Your task to perform on an android device: Empty the shopping cart on amazon.com. Add "usb-b" to the cart on amazon.com, then select checkout. Image 0: 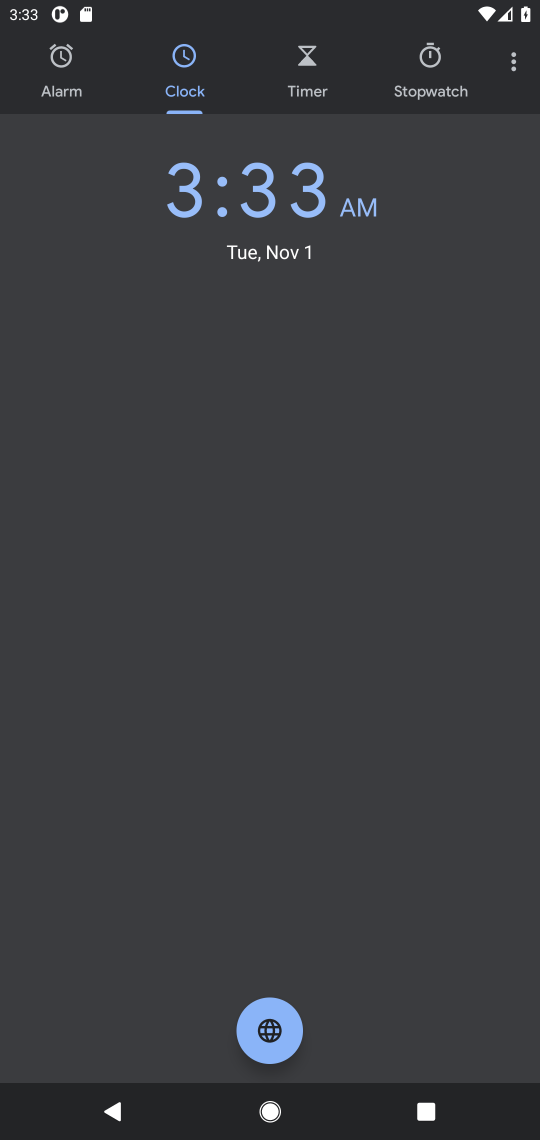
Step 0: press home button
Your task to perform on an android device: Empty the shopping cart on amazon.com. Add "usb-b" to the cart on amazon.com, then select checkout. Image 1: 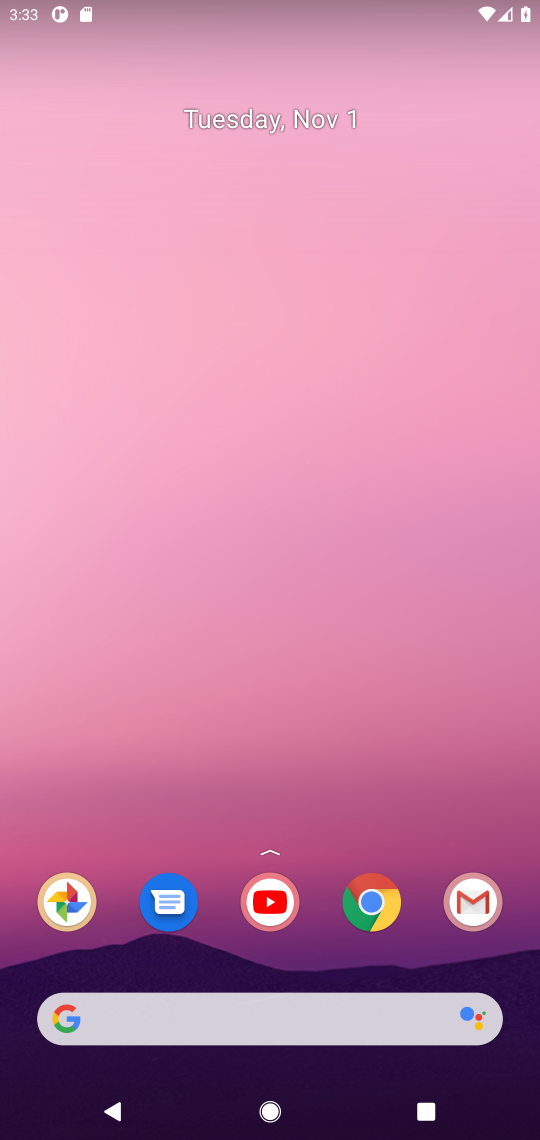
Step 1: click (373, 903)
Your task to perform on an android device: Empty the shopping cart on amazon.com. Add "usb-b" to the cart on amazon.com, then select checkout. Image 2: 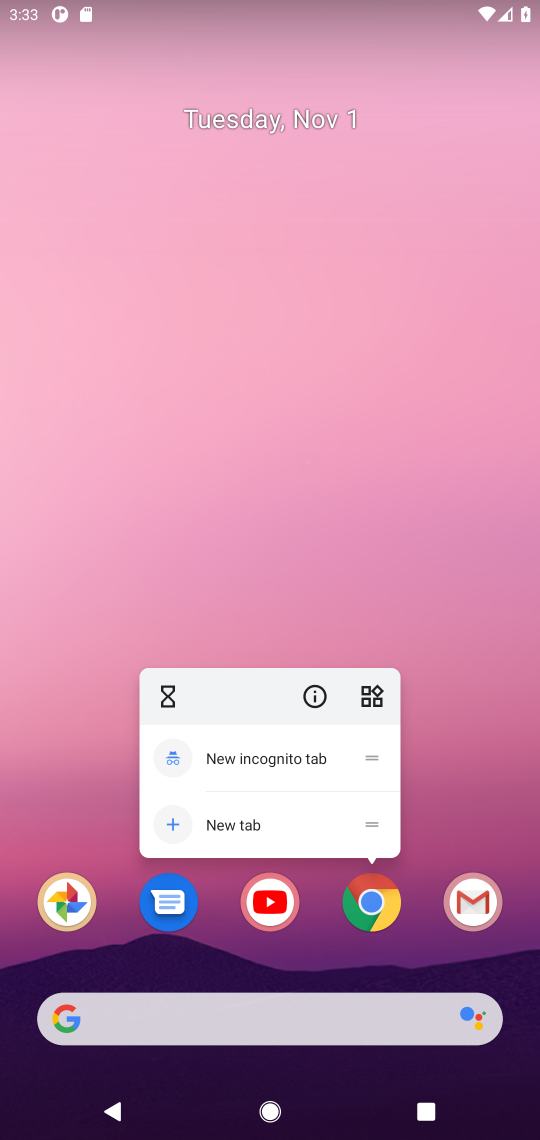
Step 2: click (375, 902)
Your task to perform on an android device: Empty the shopping cart on amazon.com. Add "usb-b" to the cart on amazon.com, then select checkout. Image 3: 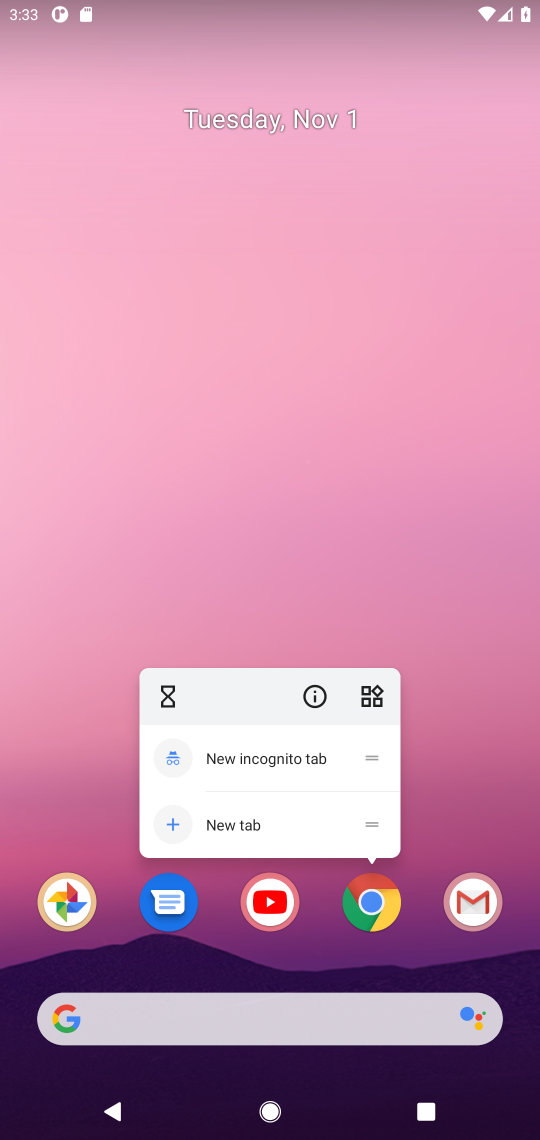
Step 3: click (369, 903)
Your task to perform on an android device: Empty the shopping cart on amazon.com. Add "usb-b" to the cart on amazon.com, then select checkout. Image 4: 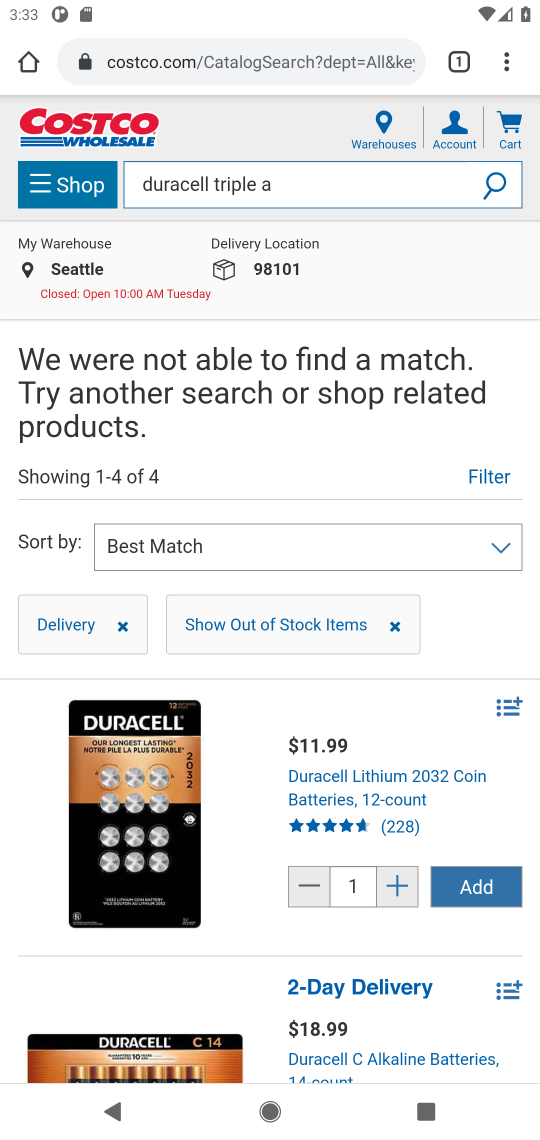
Step 4: click (232, 55)
Your task to perform on an android device: Empty the shopping cart on amazon.com. Add "usb-b" to the cart on amazon.com, then select checkout. Image 5: 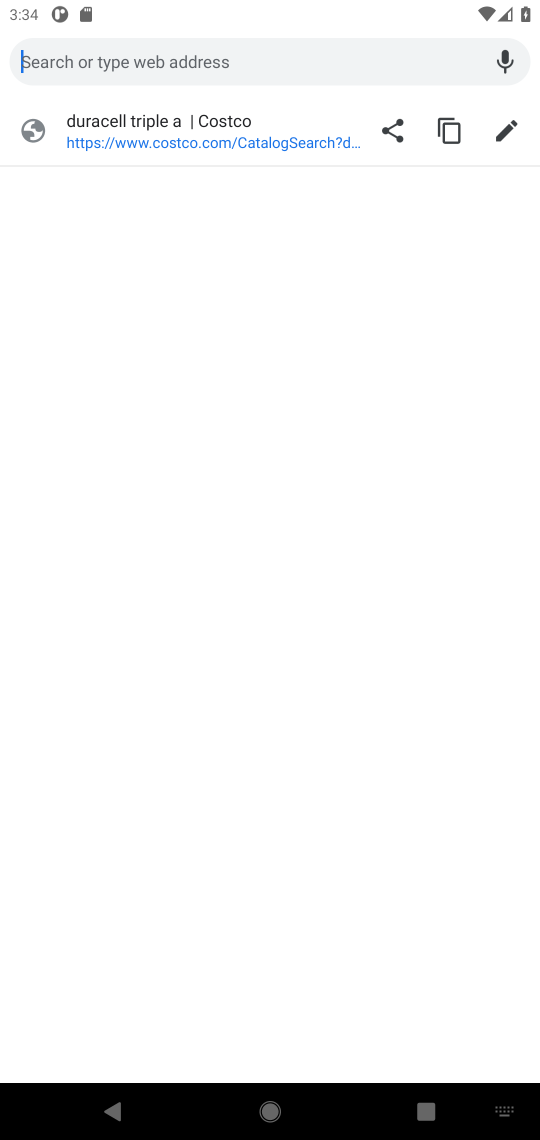
Step 5: type "amazon.com"
Your task to perform on an android device: Empty the shopping cart on amazon.com. Add "usb-b" to the cart on amazon.com, then select checkout. Image 6: 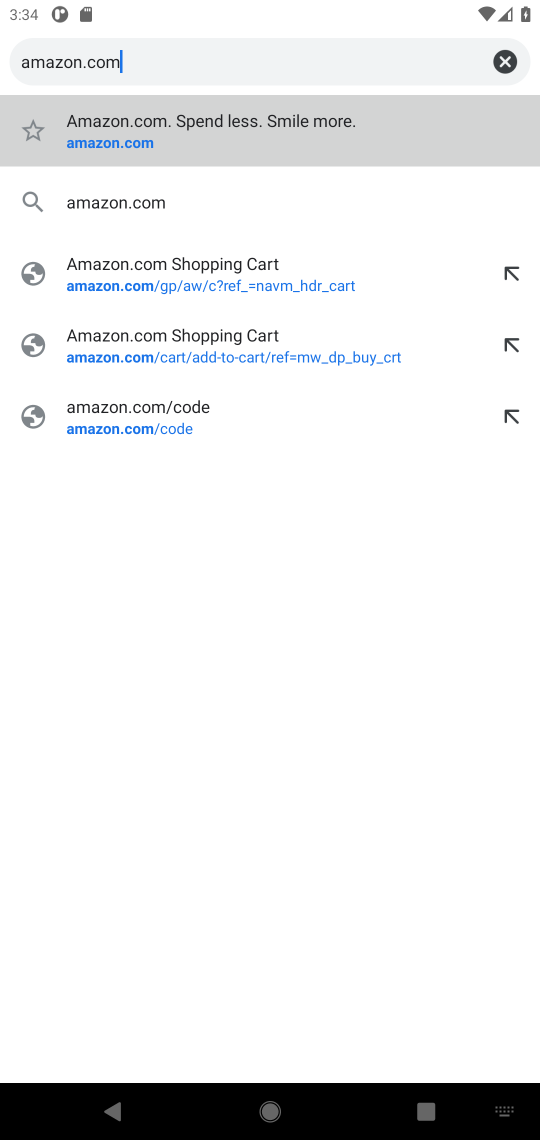
Step 6: click (124, 204)
Your task to perform on an android device: Empty the shopping cart on amazon.com. Add "usb-b" to the cart on amazon.com, then select checkout. Image 7: 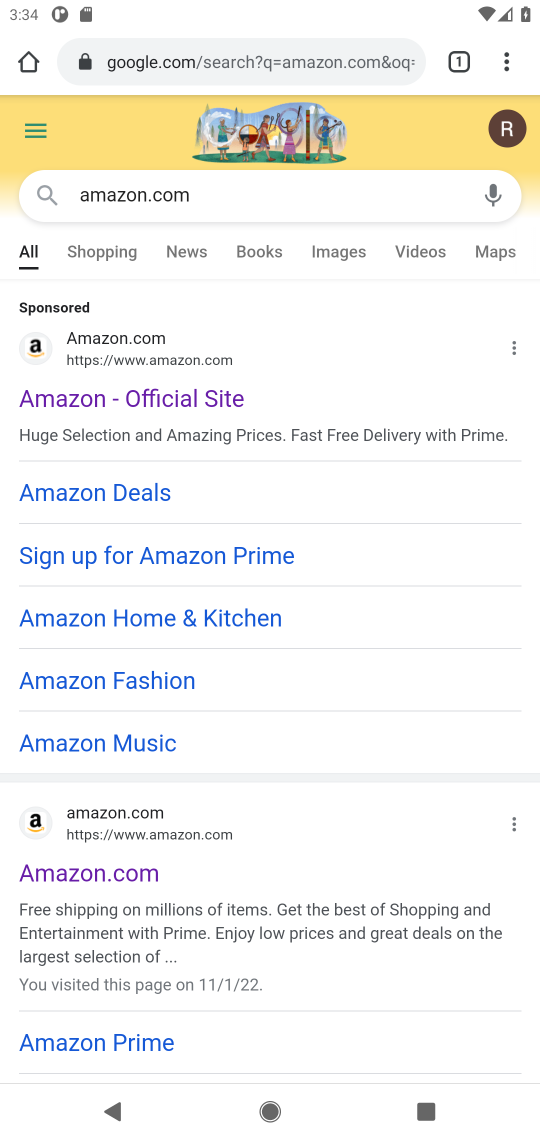
Step 7: click (139, 871)
Your task to perform on an android device: Empty the shopping cart on amazon.com. Add "usb-b" to the cart on amazon.com, then select checkout. Image 8: 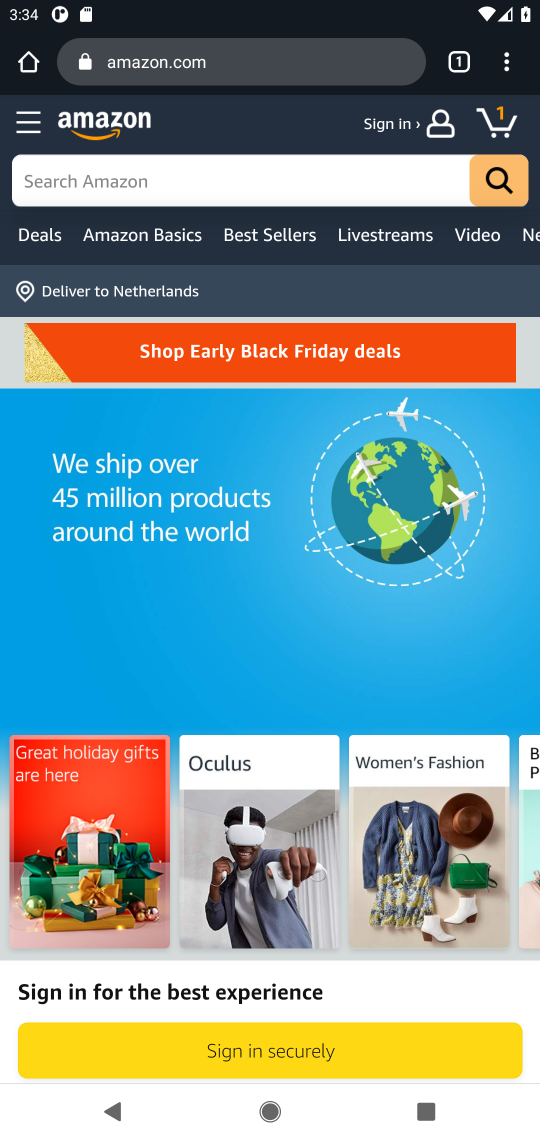
Step 8: click (235, 189)
Your task to perform on an android device: Empty the shopping cart on amazon.com. Add "usb-b" to the cart on amazon.com, then select checkout. Image 9: 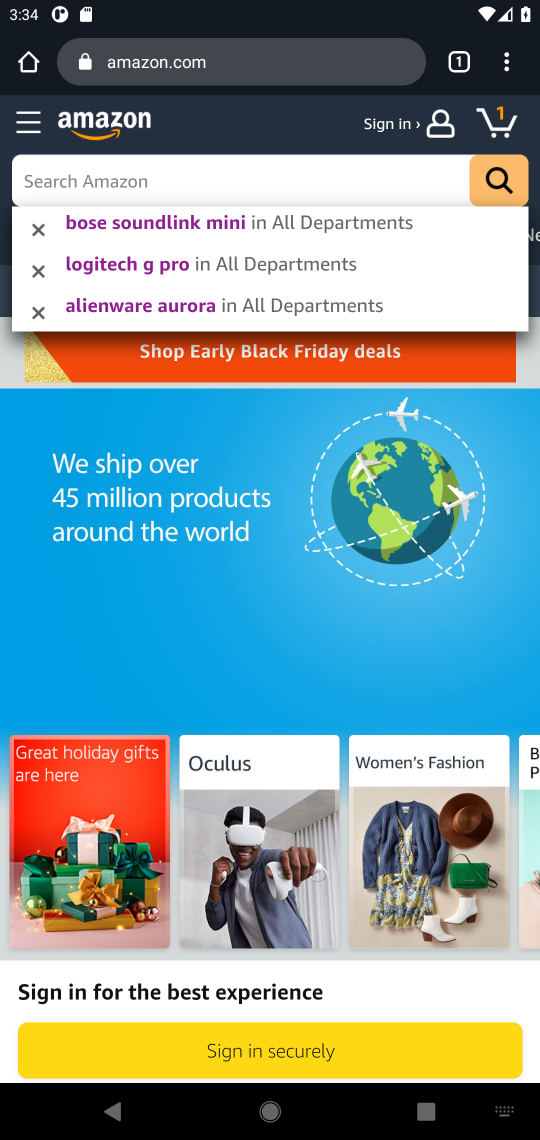
Step 9: click (493, 127)
Your task to perform on an android device: Empty the shopping cart on amazon.com. Add "usb-b" to the cart on amazon.com, then select checkout. Image 10: 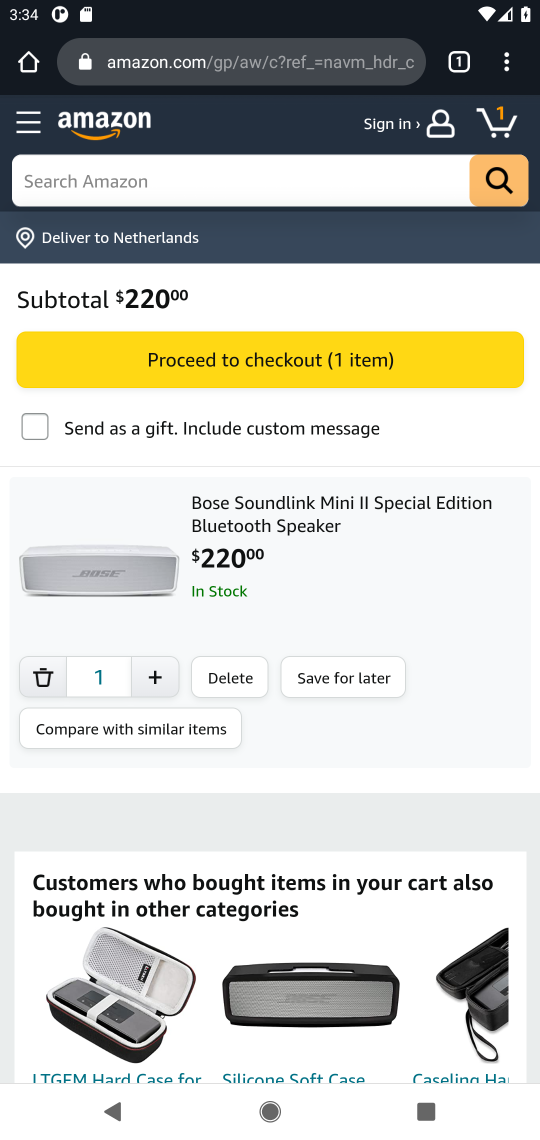
Step 10: click (216, 672)
Your task to perform on an android device: Empty the shopping cart on amazon.com. Add "usb-b" to the cart on amazon.com, then select checkout. Image 11: 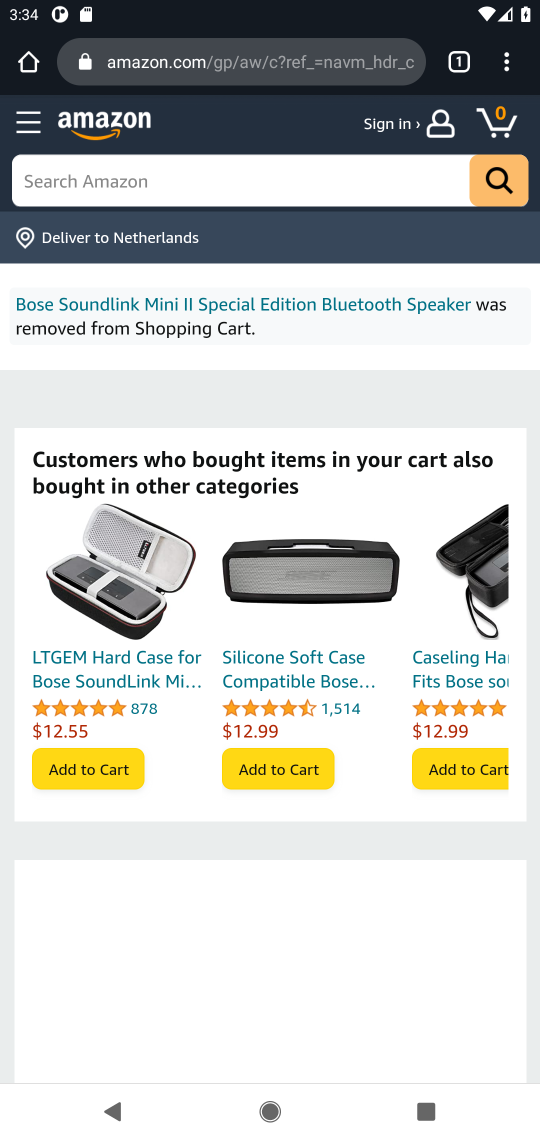
Step 11: click (160, 183)
Your task to perform on an android device: Empty the shopping cart on amazon.com. Add "usb-b" to the cart on amazon.com, then select checkout. Image 12: 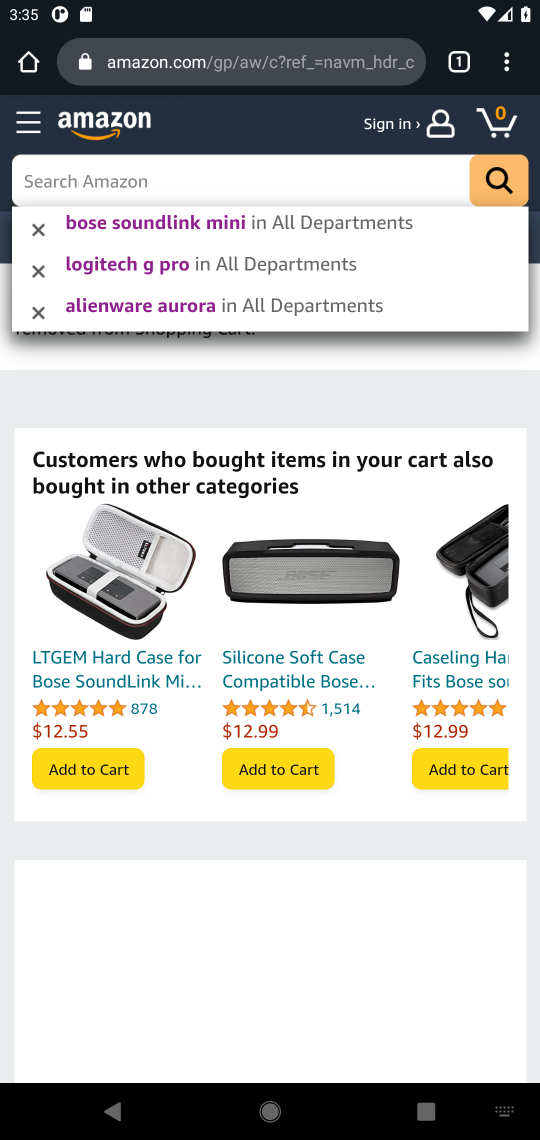
Step 12: type "usb-b"
Your task to perform on an android device: Empty the shopping cart on amazon.com. Add "usb-b" to the cart on amazon.com, then select checkout. Image 13: 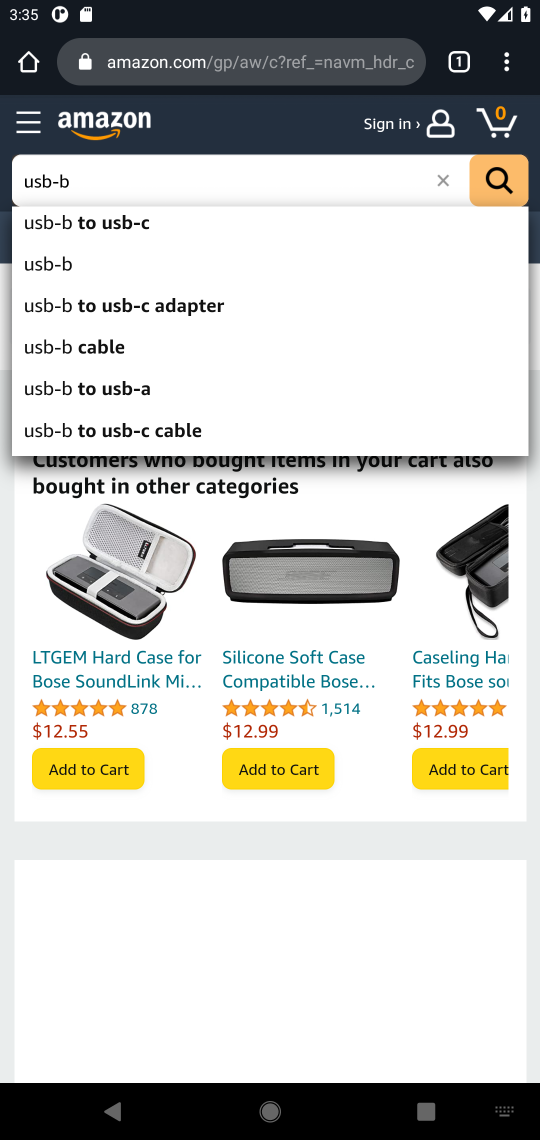
Step 13: click (67, 266)
Your task to perform on an android device: Empty the shopping cart on amazon.com. Add "usb-b" to the cart on amazon.com, then select checkout. Image 14: 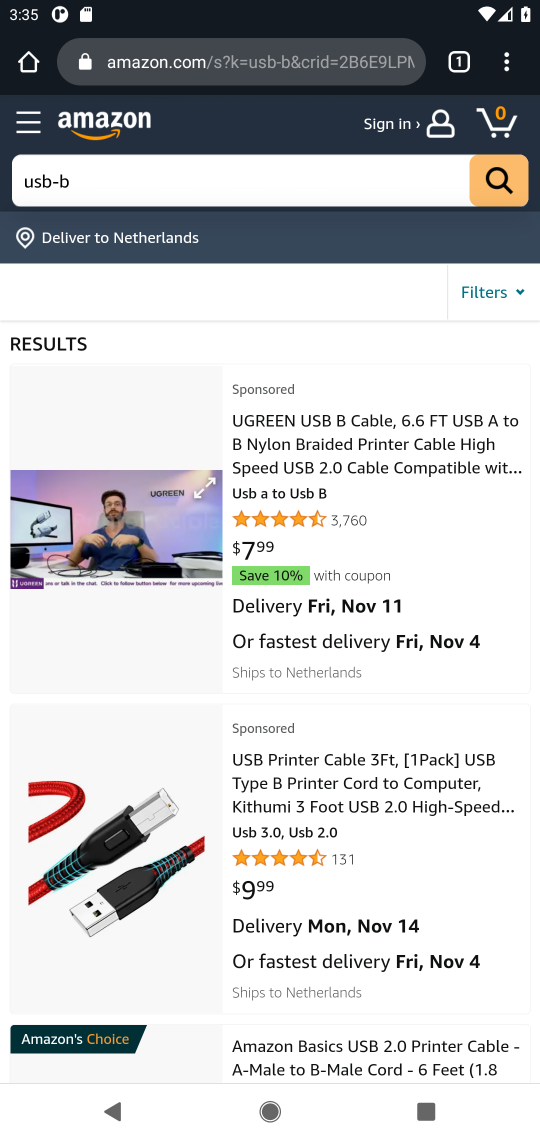
Step 14: click (360, 442)
Your task to perform on an android device: Empty the shopping cart on amazon.com. Add "usb-b" to the cart on amazon.com, then select checkout. Image 15: 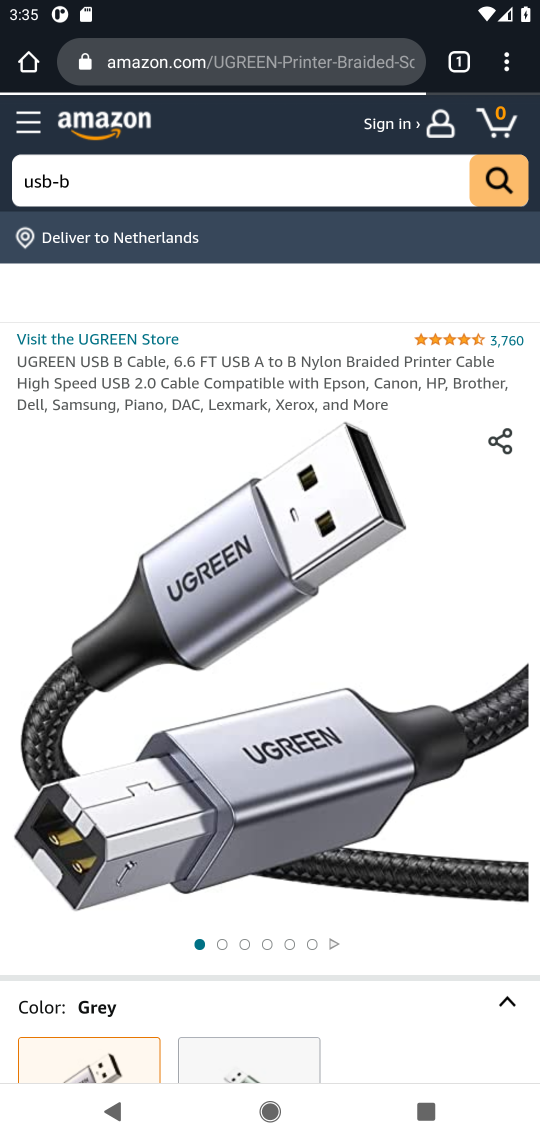
Step 15: drag from (292, 954) to (323, 462)
Your task to perform on an android device: Empty the shopping cart on amazon.com. Add "usb-b" to the cart on amazon.com, then select checkout. Image 16: 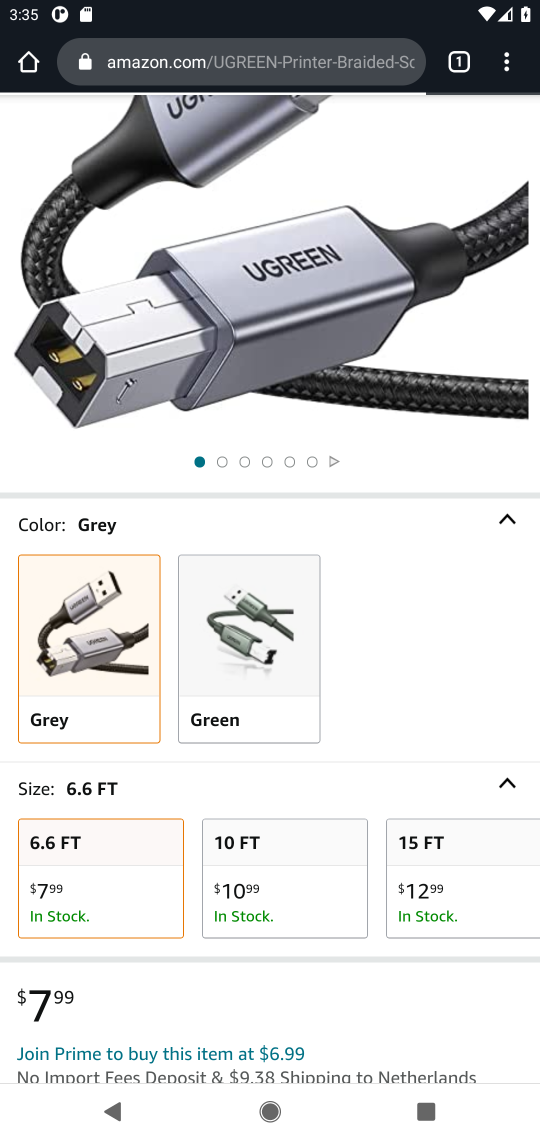
Step 16: drag from (270, 945) to (381, 408)
Your task to perform on an android device: Empty the shopping cart on amazon.com. Add "usb-b" to the cart on amazon.com, then select checkout. Image 17: 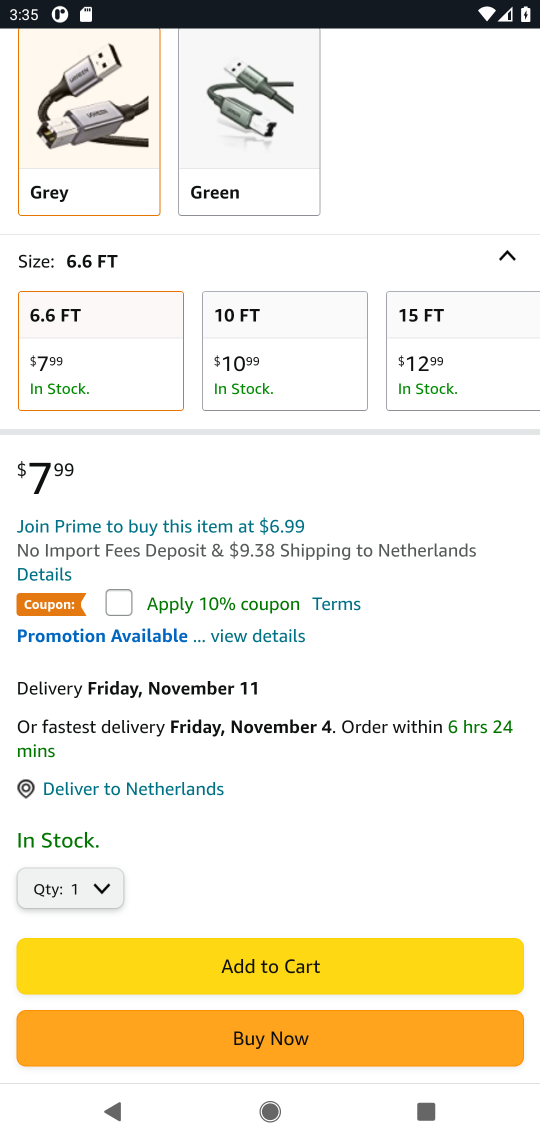
Step 17: click (244, 960)
Your task to perform on an android device: Empty the shopping cart on amazon.com. Add "usb-b" to the cart on amazon.com, then select checkout. Image 18: 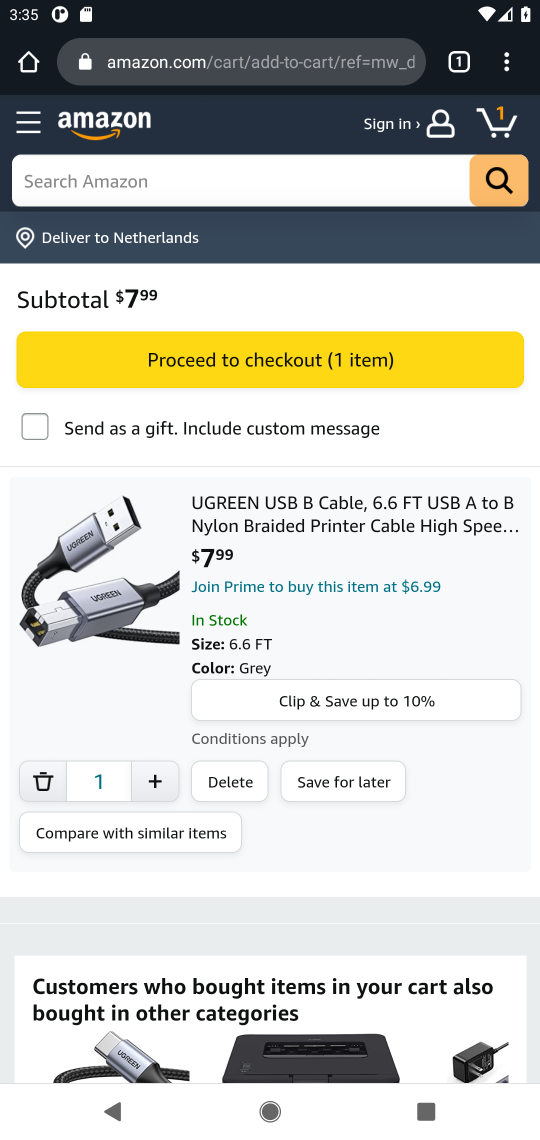
Step 18: click (262, 365)
Your task to perform on an android device: Empty the shopping cart on amazon.com. Add "usb-b" to the cart on amazon.com, then select checkout. Image 19: 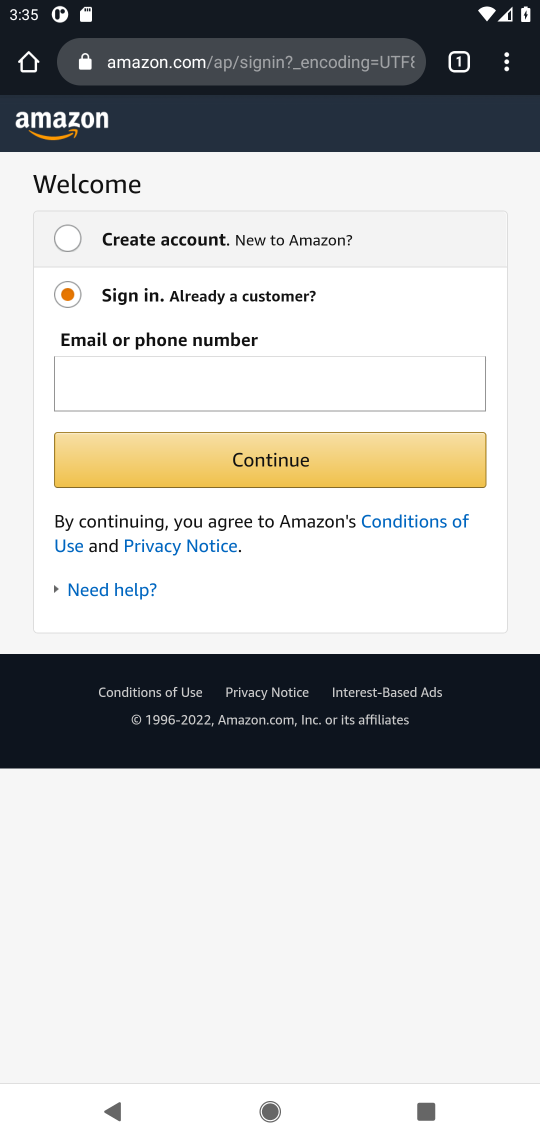
Step 19: task complete